Your task to perform on an android device: Open Youtube and go to the subscriptions tab Image 0: 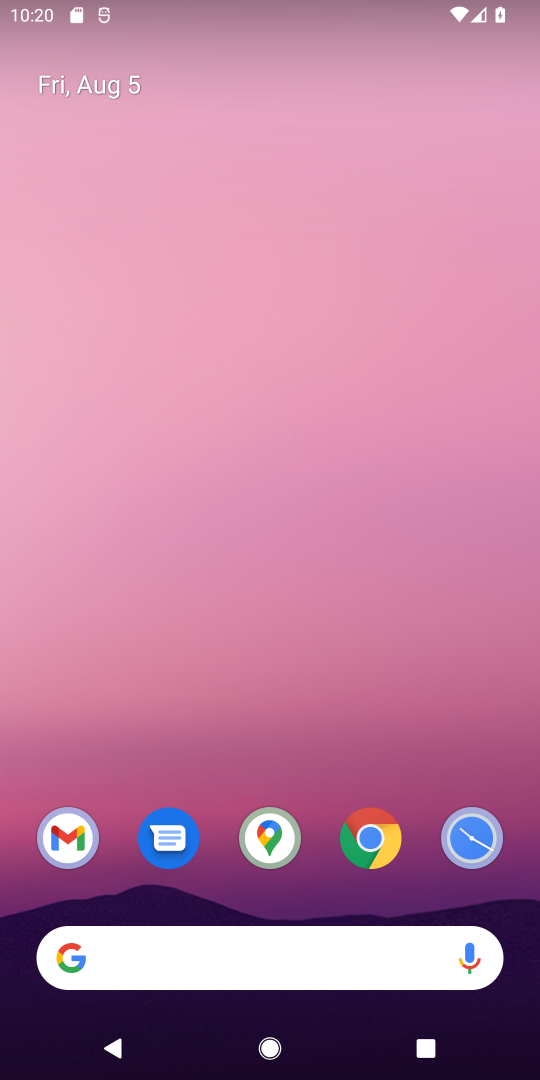
Step 0: drag from (311, 729) to (333, 152)
Your task to perform on an android device: Open Youtube and go to the subscriptions tab Image 1: 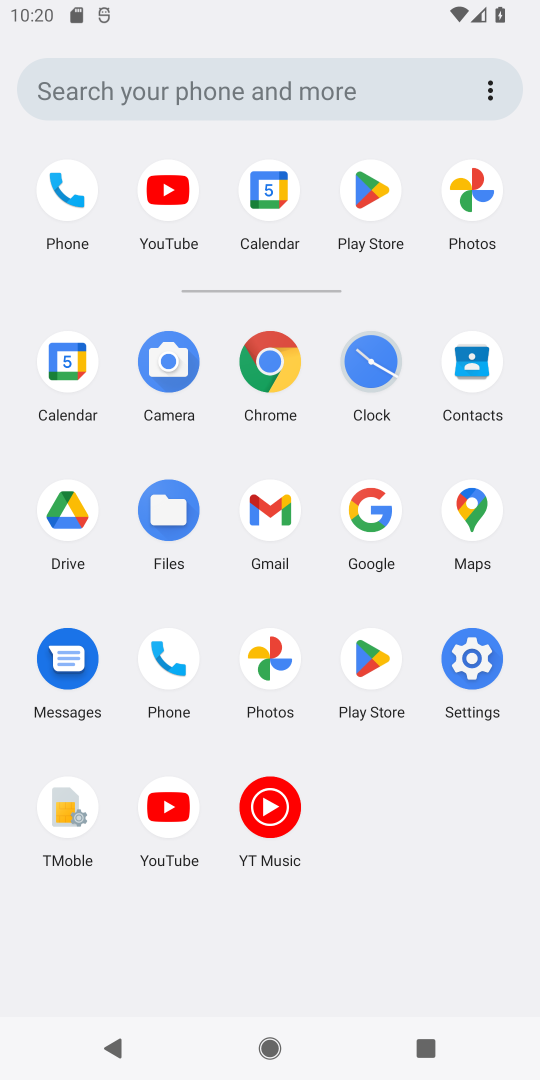
Step 1: click (160, 198)
Your task to perform on an android device: Open Youtube and go to the subscriptions tab Image 2: 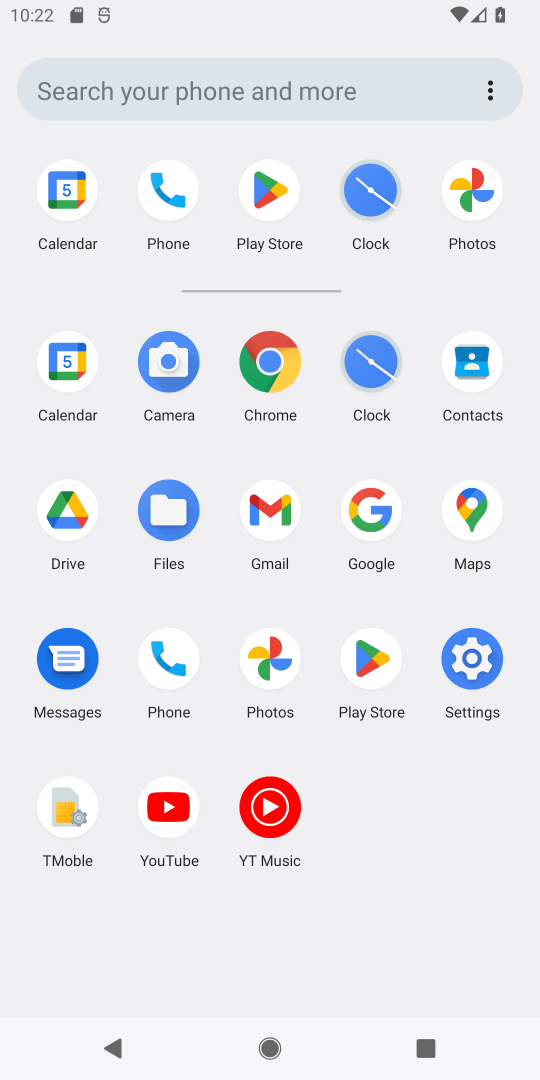
Step 2: click (175, 815)
Your task to perform on an android device: Open Youtube and go to the subscriptions tab Image 3: 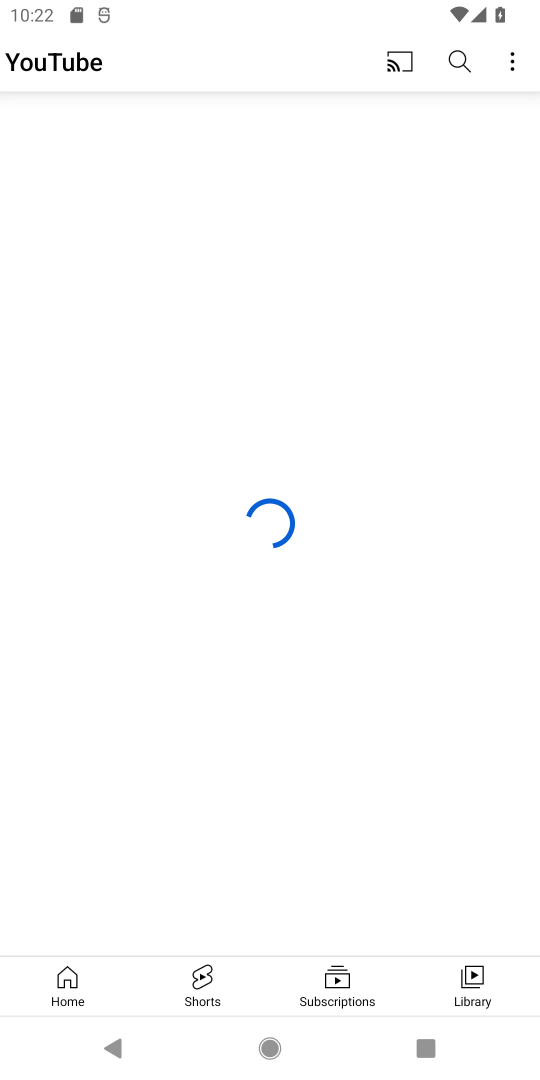
Step 3: click (335, 975)
Your task to perform on an android device: Open Youtube and go to the subscriptions tab Image 4: 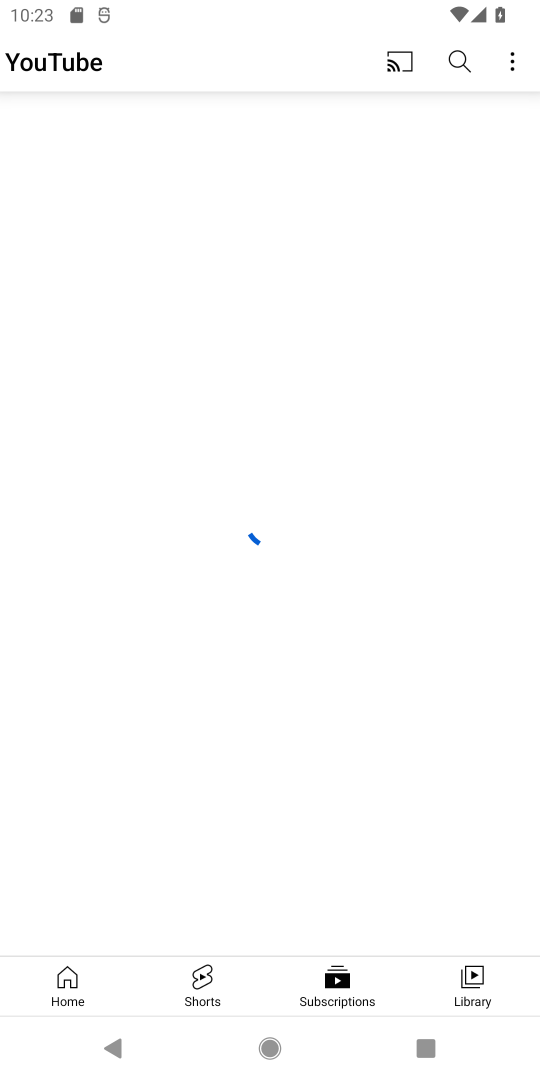
Step 4: task complete